Your task to perform on an android device: open chrome and create a bookmark for the current page Image 0: 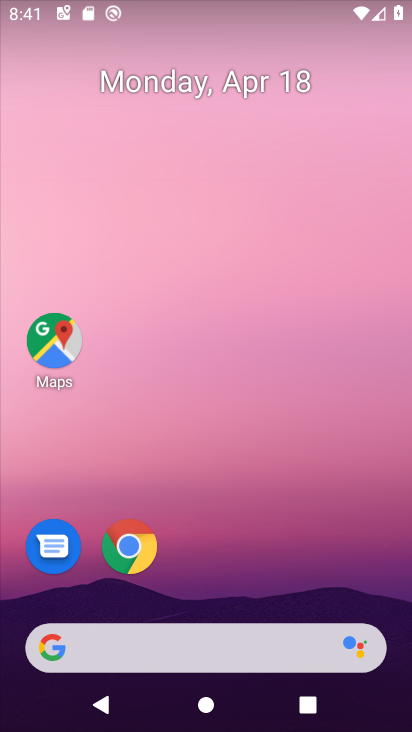
Step 0: drag from (278, 511) to (210, 148)
Your task to perform on an android device: open chrome and create a bookmark for the current page Image 1: 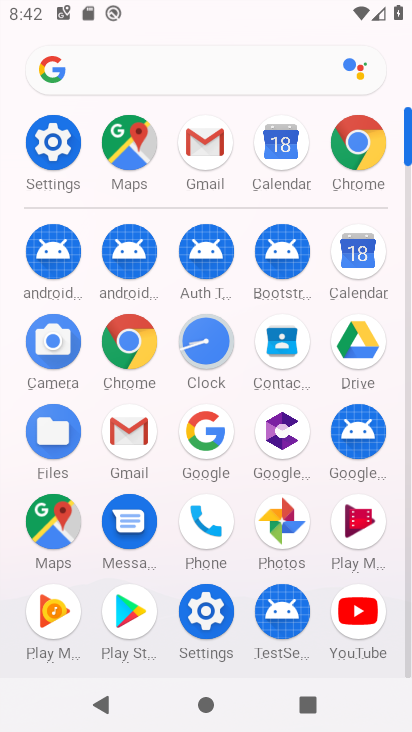
Step 1: click (375, 154)
Your task to perform on an android device: open chrome and create a bookmark for the current page Image 2: 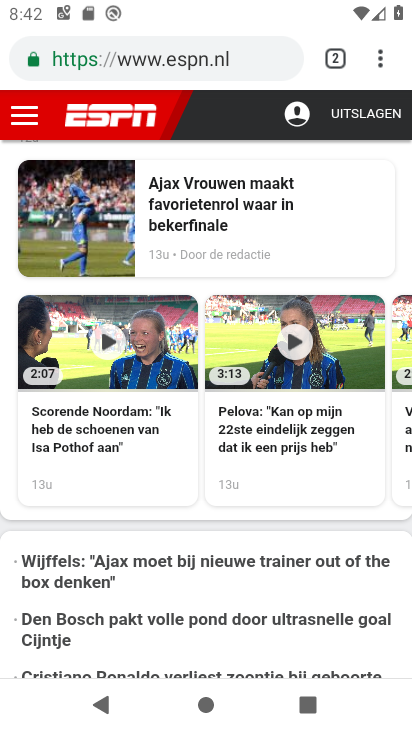
Step 2: click (381, 68)
Your task to perform on an android device: open chrome and create a bookmark for the current page Image 3: 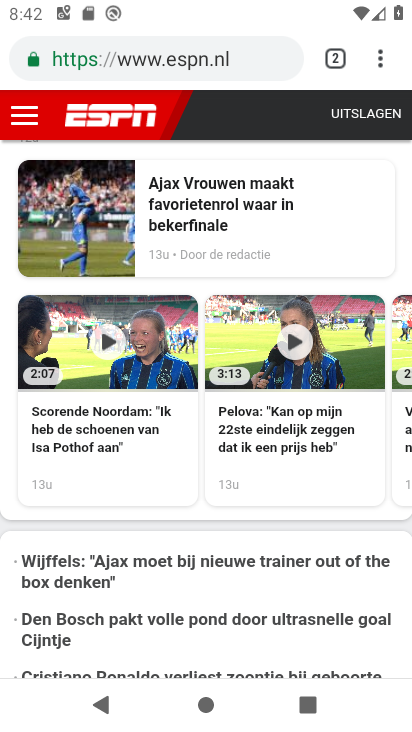
Step 3: click (210, 217)
Your task to perform on an android device: open chrome and create a bookmark for the current page Image 4: 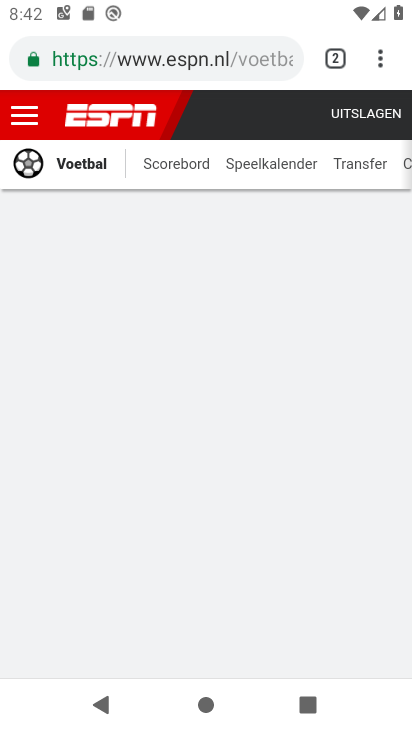
Step 4: task complete